Your task to perform on an android device: add a contact Image 0: 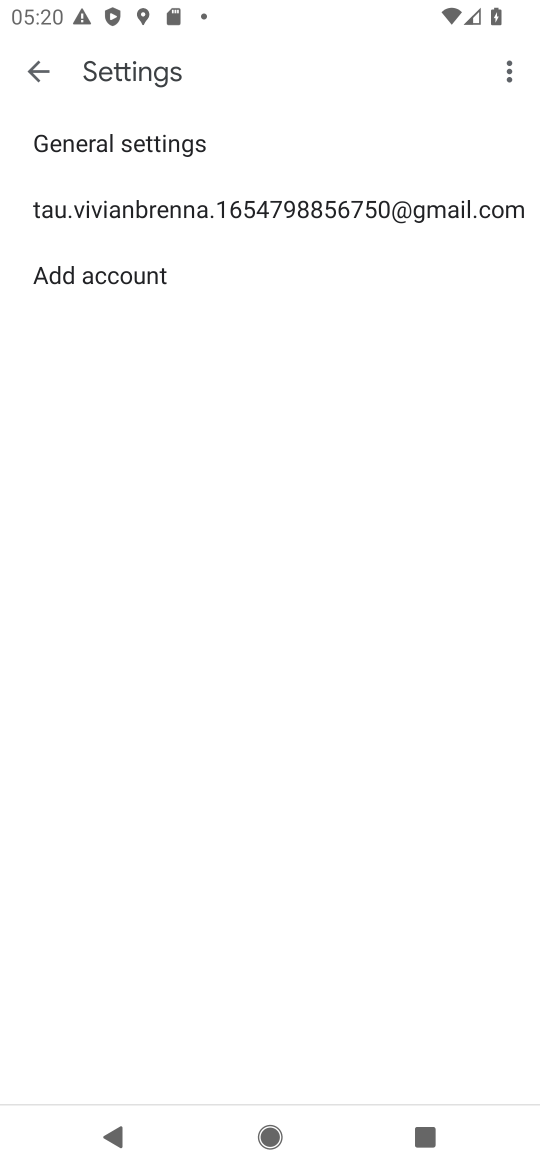
Step 0: press home button
Your task to perform on an android device: add a contact Image 1: 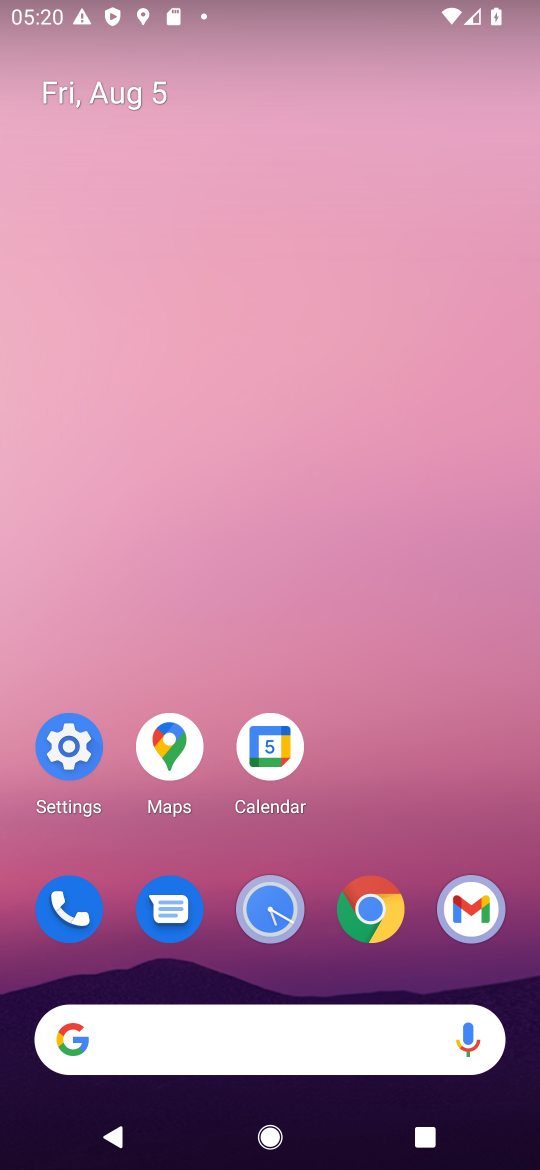
Step 1: drag from (379, 781) to (304, 12)
Your task to perform on an android device: add a contact Image 2: 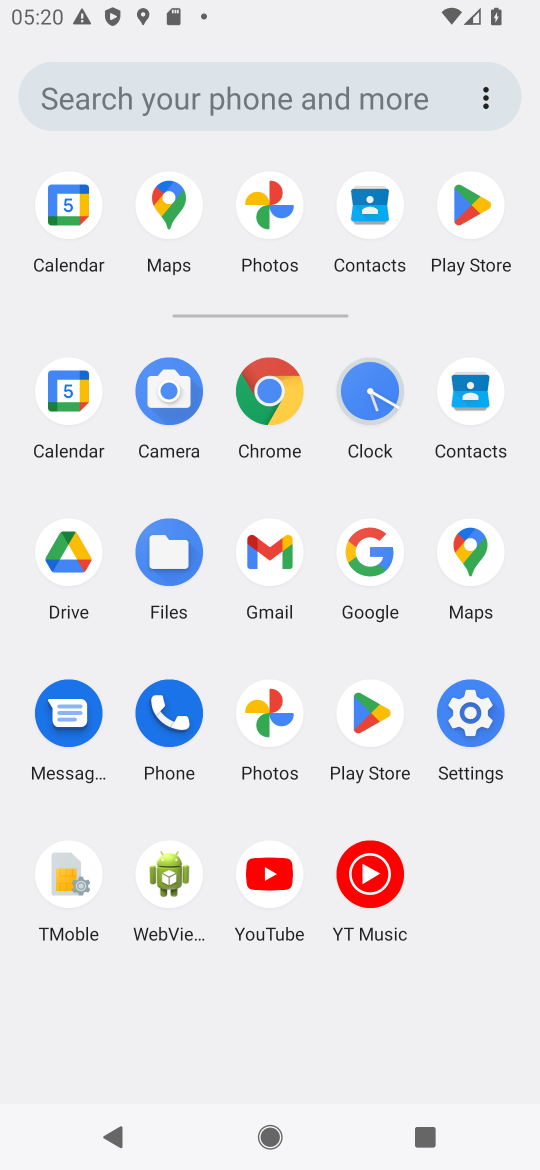
Step 2: click (470, 401)
Your task to perform on an android device: add a contact Image 3: 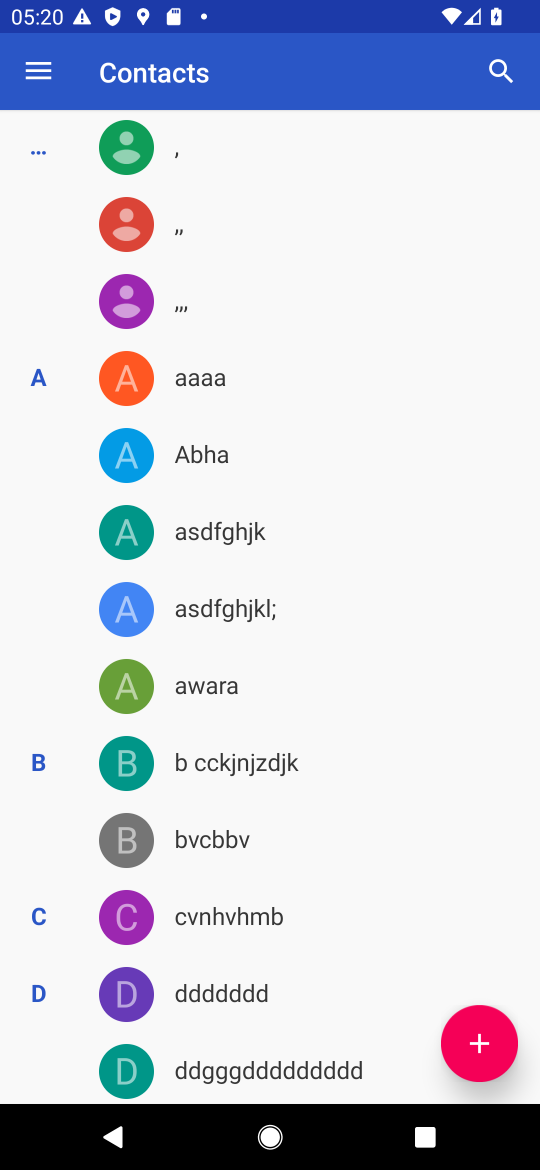
Step 3: click (469, 1034)
Your task to perform on an android device: add a contact Image 4: 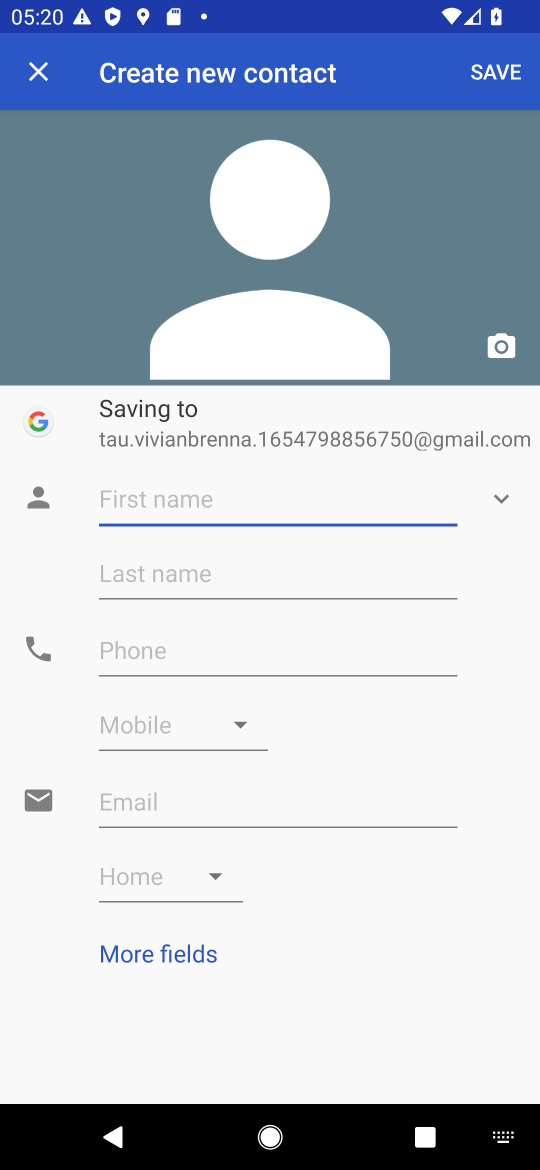
Step 4: type "mmmmmmm"
Your task to perform on an android device: add a contact Image 5: 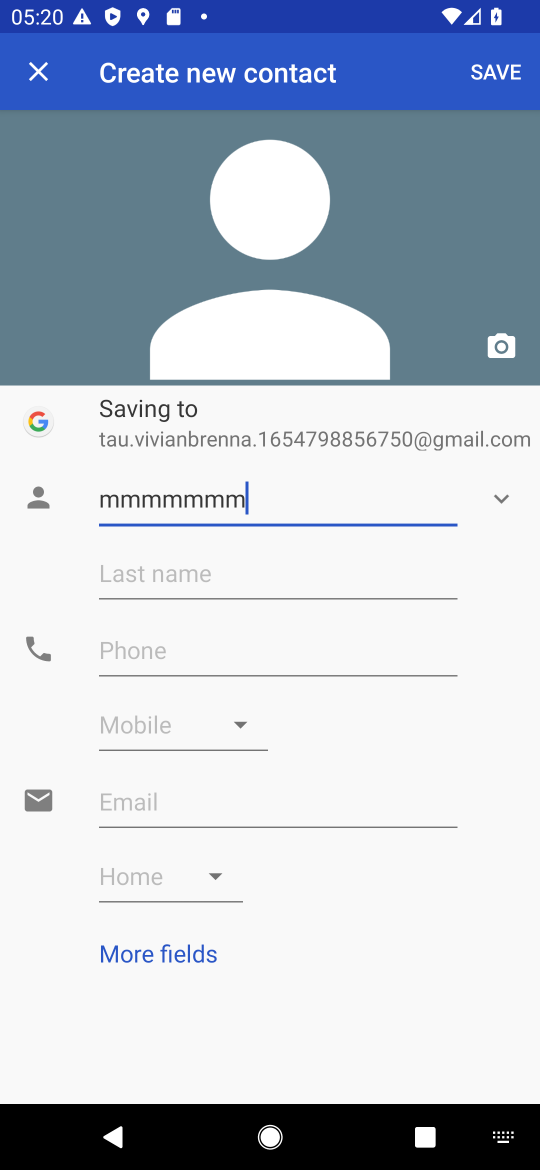
Step 5: click (159, 646)
Your task to perform on an android device: add a contact Image 6: 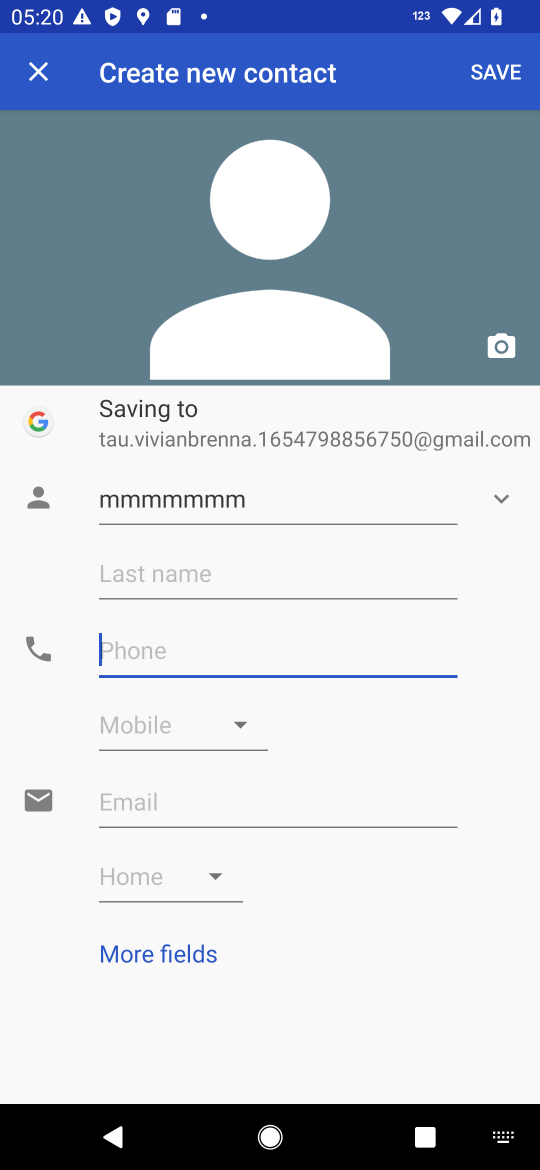
Step 6: type "9999999"
Your task to perform on an android device: add a contact Image 7: 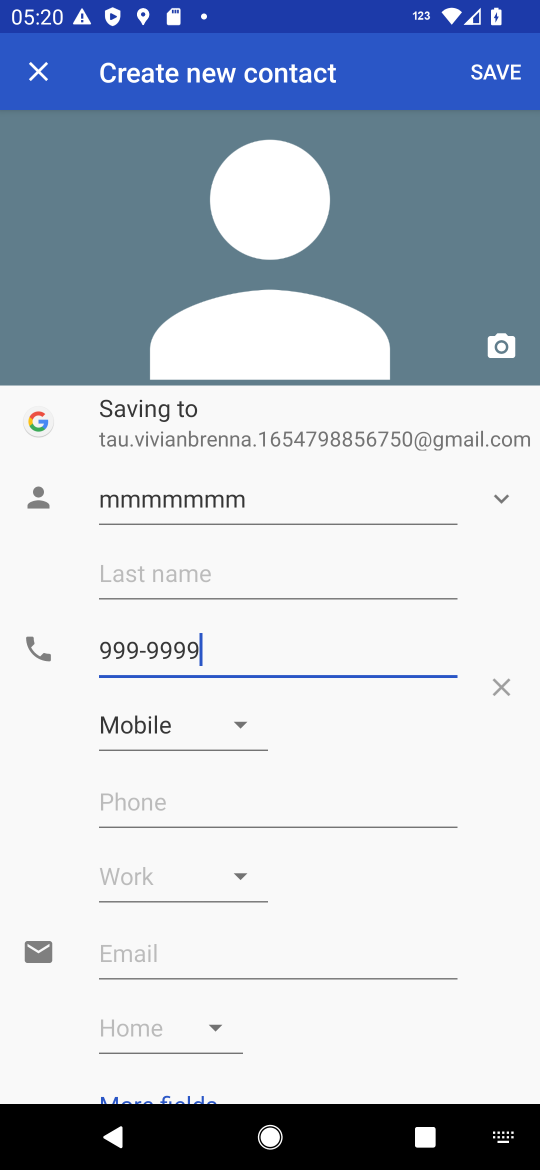
Step 7: click (503, 63)
Your task to perform on an android device: add a contact Image 8: 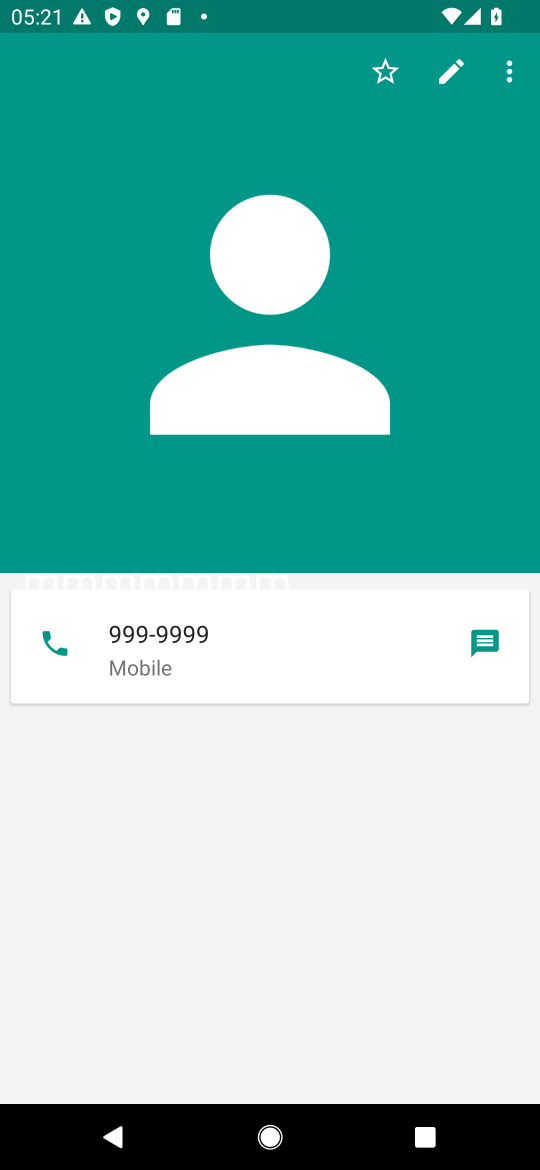
Step 8: task complete